Your task to perform on an android device: open device folders in google photos Image 0: 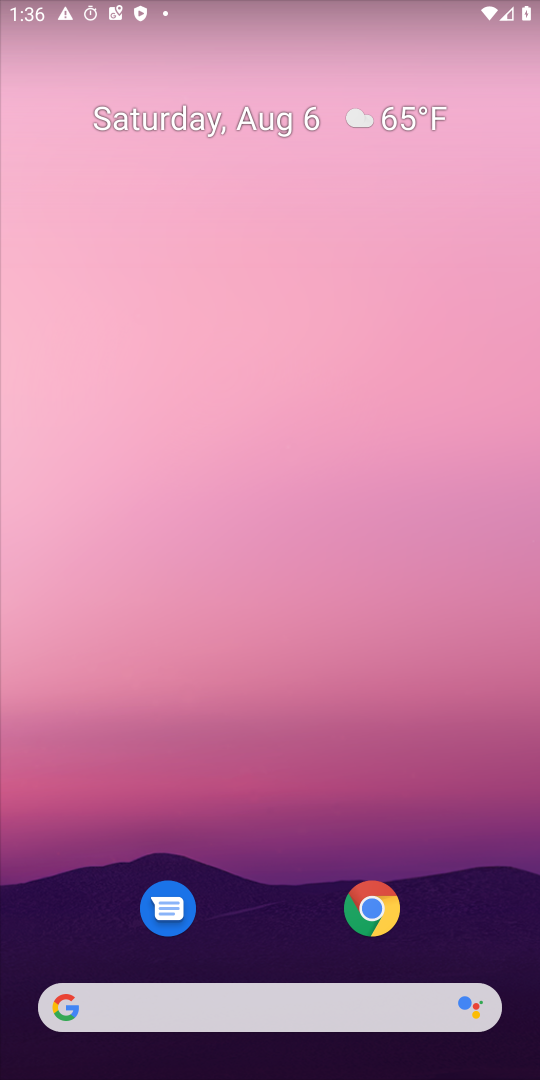
Step 0: drag from (257, 853) to (145, 78)
Your task to perform on an android device: open device folders in google photos Image 1: 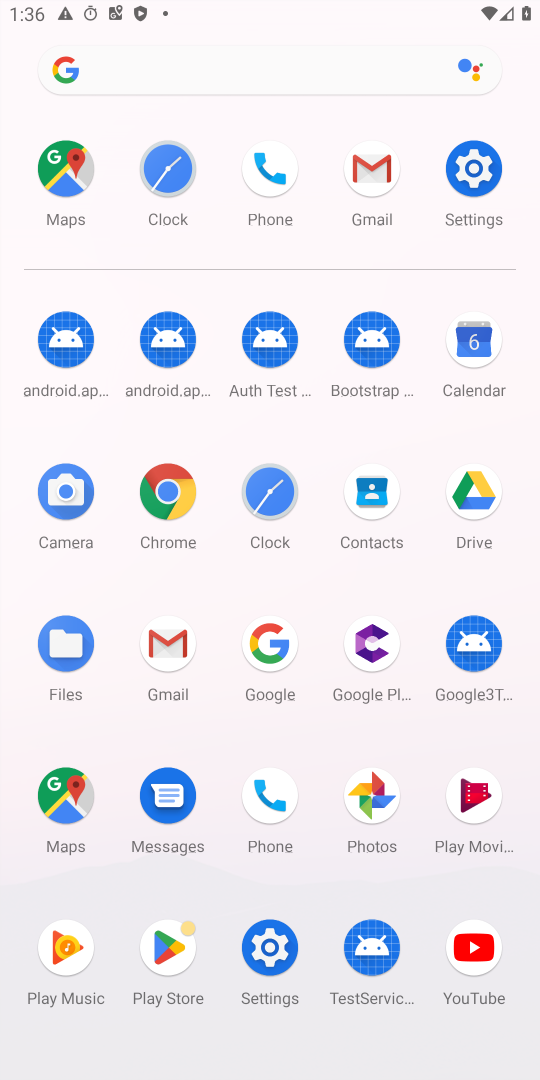
Step 1: click (377, 793)
Your task to perform on an android device: open device folders in google photos Image 2: 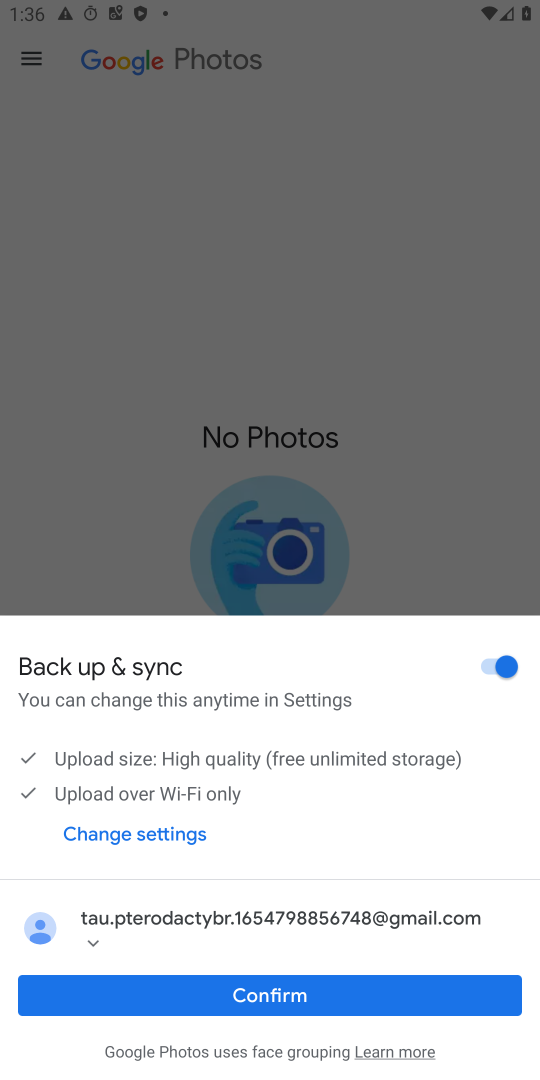
Step 2: click (308, 998)
Your task to perform on an android device: open device folders in google photos Image 3: 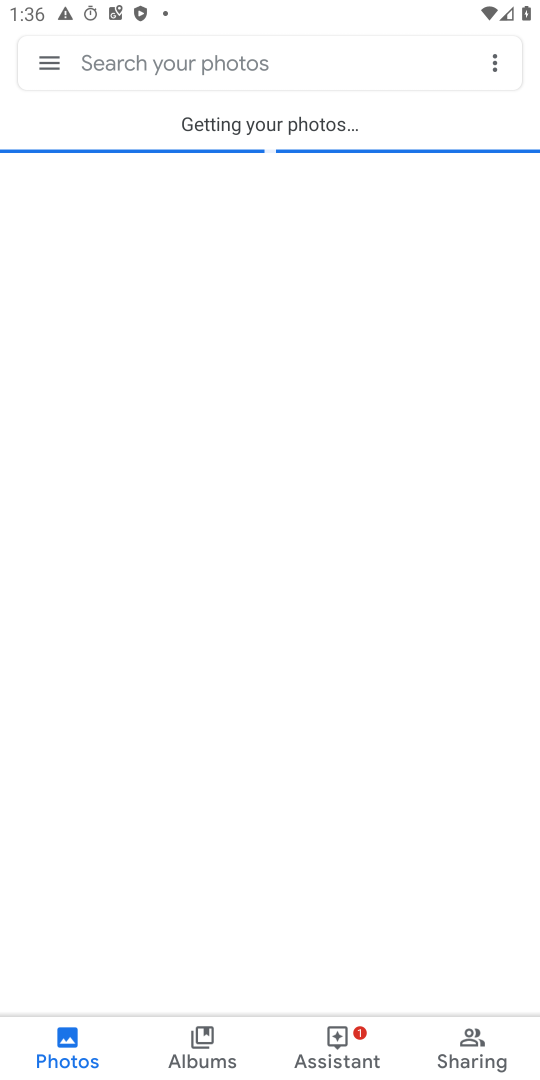
Step 3: click (58, 63)
Your task to perform on an android device: open device folders in google photos Image 4: 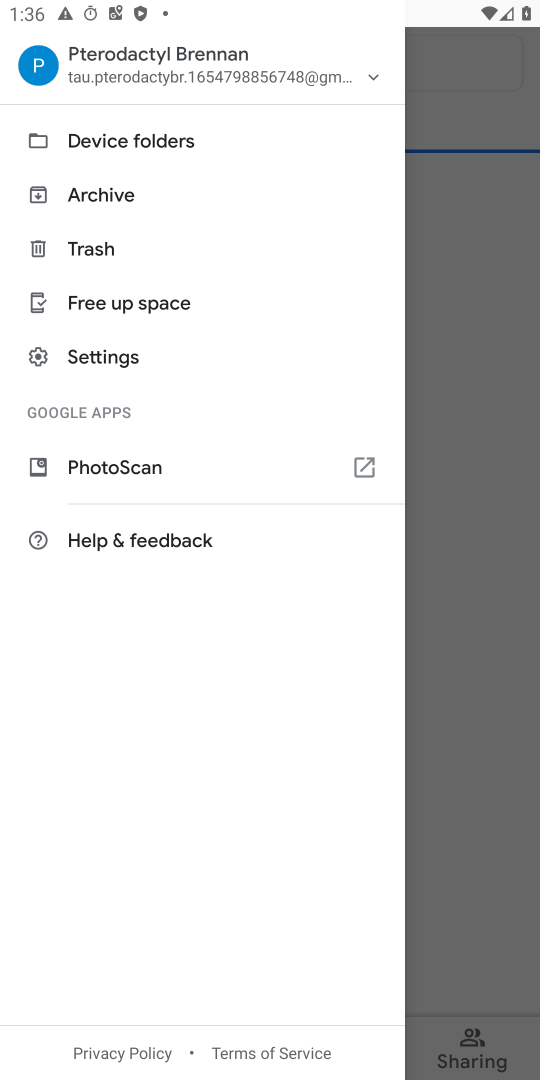
Step 4: click (139, 147)
Your task to perform on an android device: open device folders in google photos Image 5: 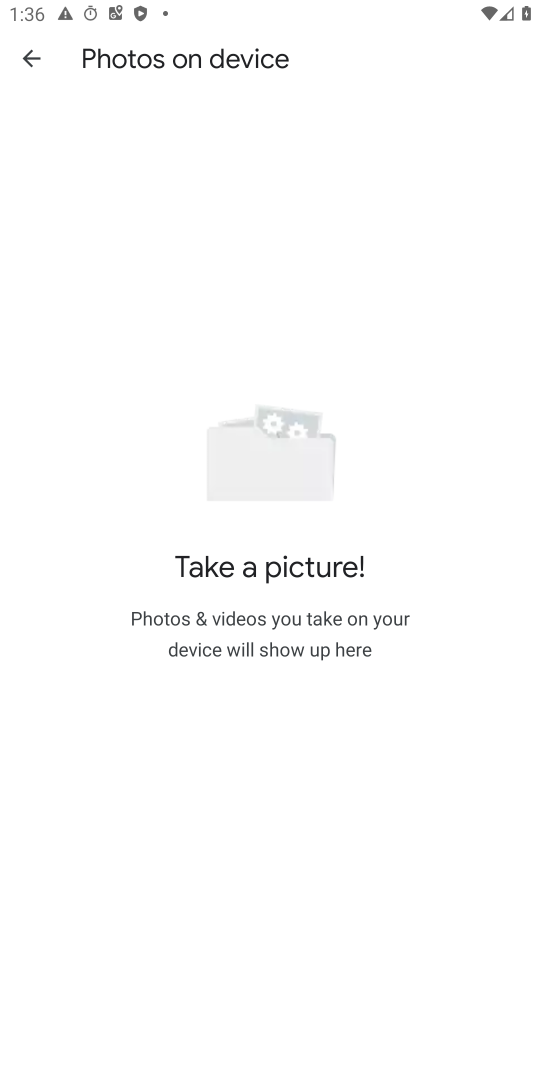
Step 5: task complete